Your task to perform on an android device: open wifi settings Image 0: 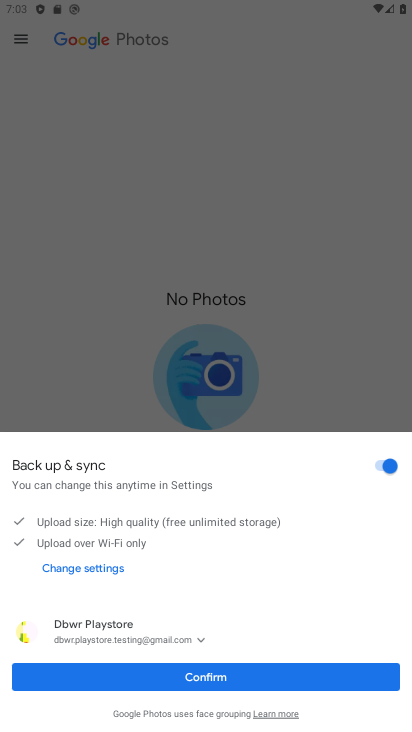
Step 0: click (260, 680)
Your task to perform on an android device: open wifi settings Image 1: 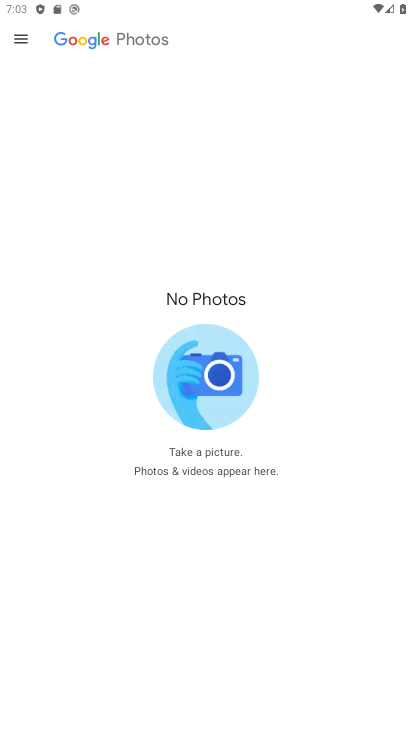
Step 1: press home button
Your task to perform on an android device: open wifi settings Image 2: 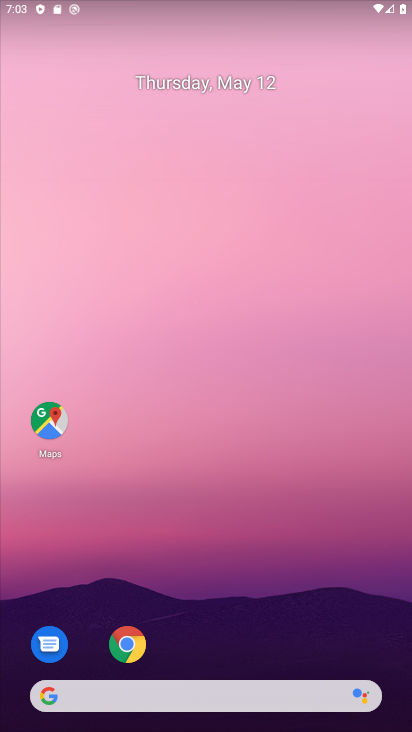
Step 2: drag from (228, 709) to (246, 131)
Your task to perform on an android device: open wifi settings Image 3: 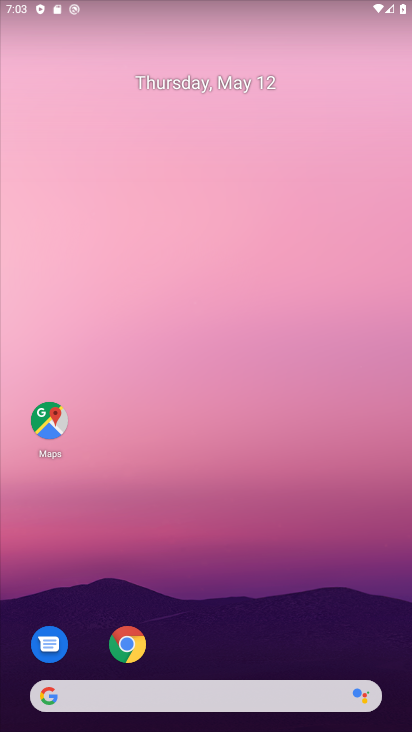
Step 3: drag from (217, 714) to (268, 92)
Your task to perform on an android device: open wifi settings Image 4: 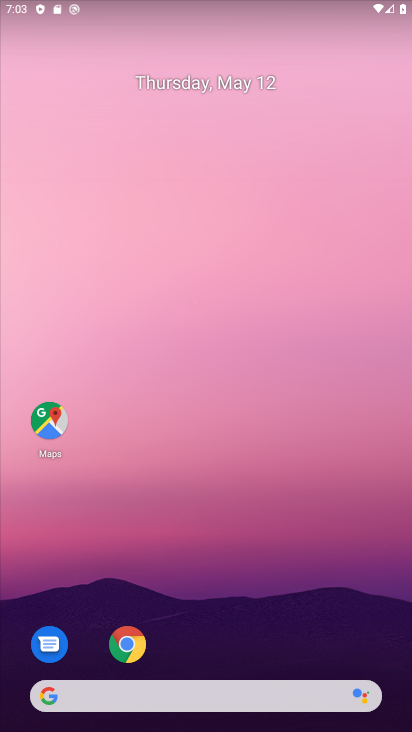
Step 4: drag from (219, 701) to (241, 92)
Your task to perform on an android device: open wifi settings Image 5: 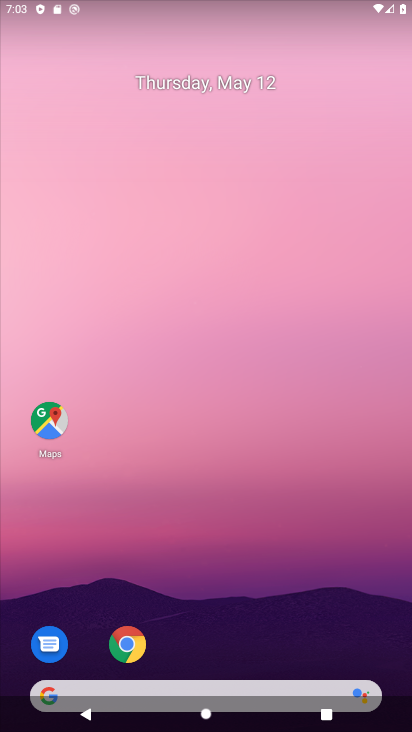
Step 5: click (213, 465)
Your task to perform on an android device: open wifi settings Image 6: 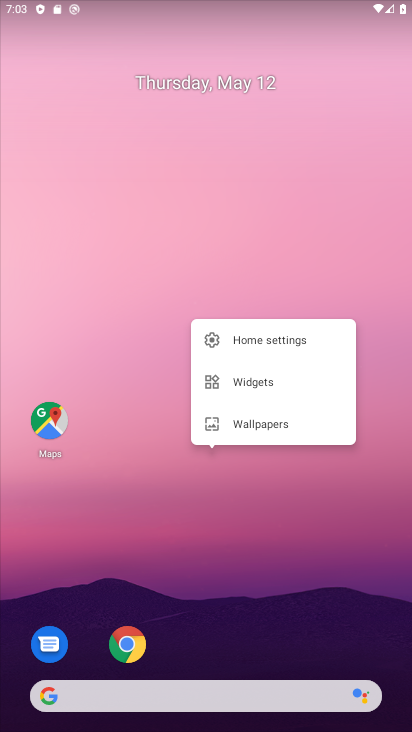
Step 6: click (248, 558)
Your task to perform on an android device: open wifi settings Image 7: 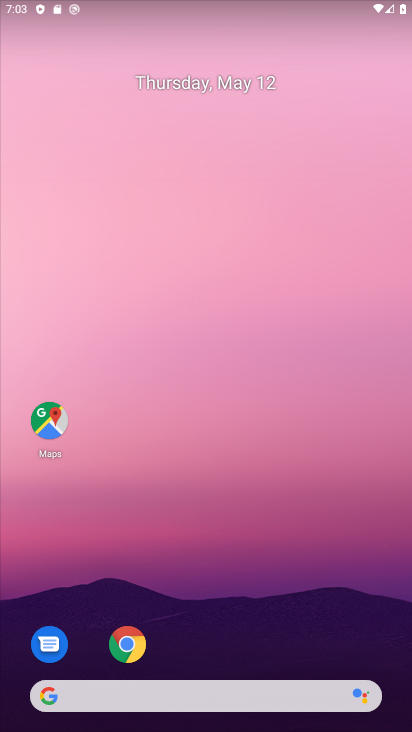
Step 7: drag from (280, 712) to (319, 129)
Your task to perform on an android device: open wifi settings Image 8: 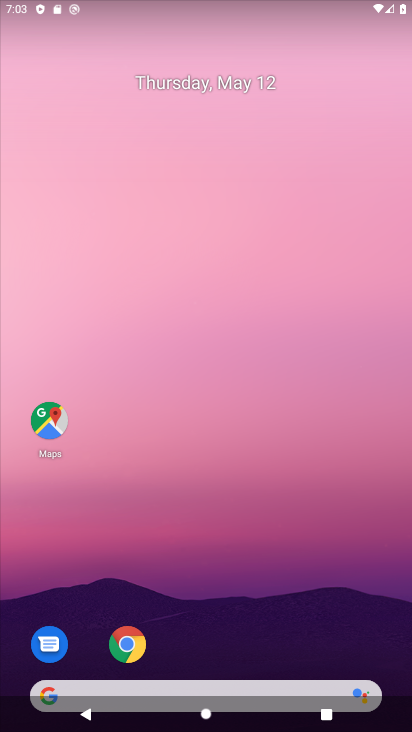
Step 8: drag from (205, 620) to (197, 59)
Your task to perform on an android device: open wifi settings Image 9: 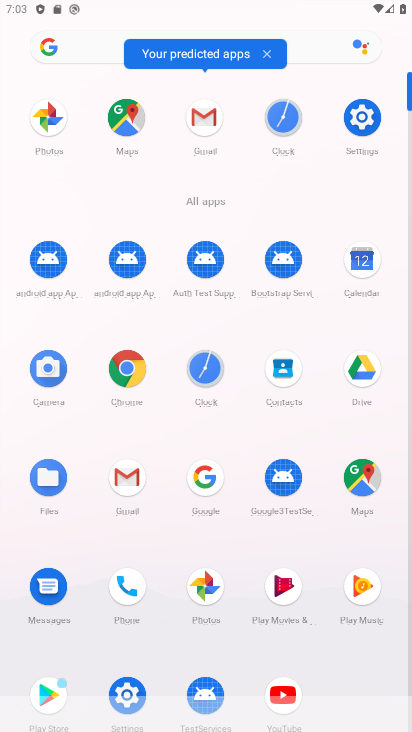
Step 9: click (360, 122)
Your task to perform on an android device: open wifi settings Image 10: 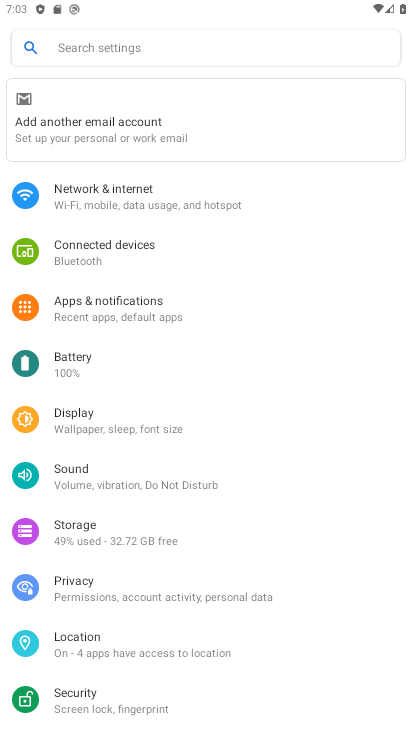
Step 10: click (123, 189)
Your task to perform on an android device: open wifi settings Image 11: 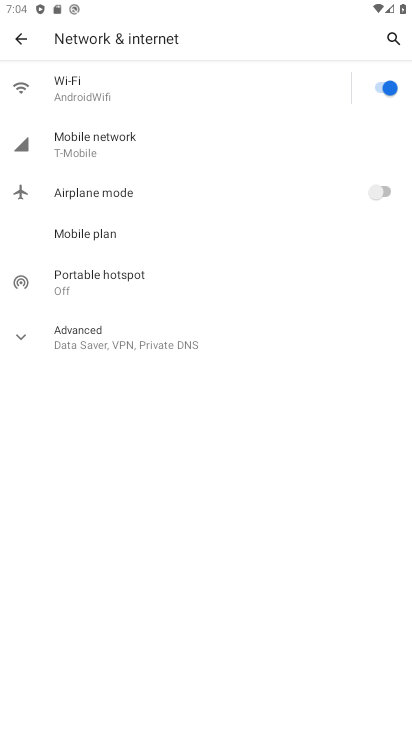
Step 11: click (145, 88)
Your task to perform on an android device: open wifi settings Image 12: 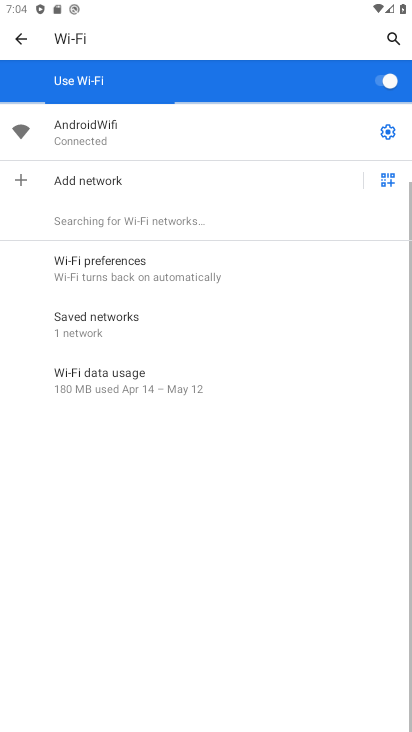
Step 12: task complete